Your task to perform on an android device: toggle data saver in the chrome app Image 0: 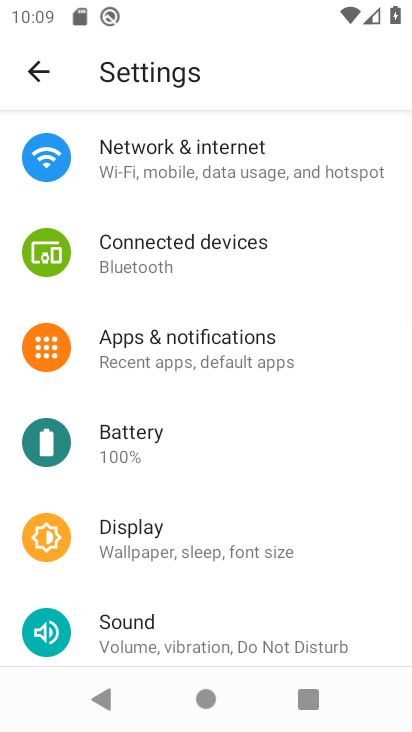
Step 0: press home button
Your task to perform on an android device: toggle data saver in the chrome app Image 1: 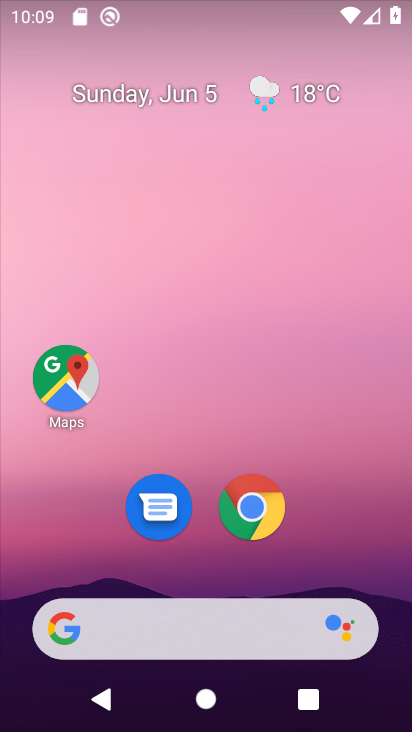
Step 1: click (241, 503)
Your task to perform on an android device: toggle data saver in the chrome app Image 2: 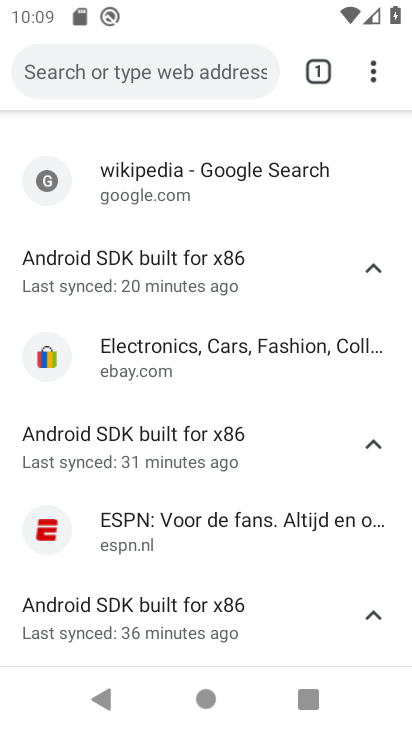
Step 2: click (371, 73)
Your task to perform on an android device: toggle data saver in the chrome app Image 3: 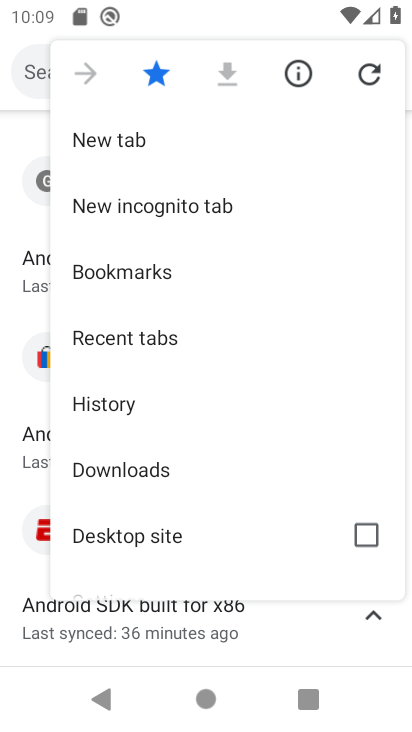
Step 3: drag from (191, 561) to (233, 205)
Your task to perform on an android device: toggle data saver in the chrome app Image 4: 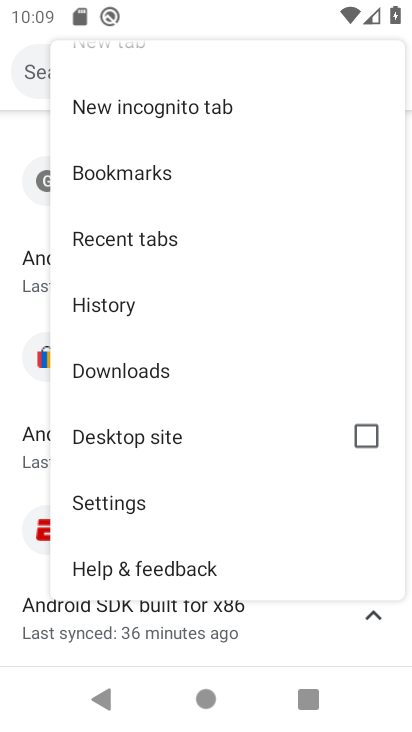
Step 4: click (133, 505)
Your task to perform on an android device: toggle data saver in the chrome app Image 5: 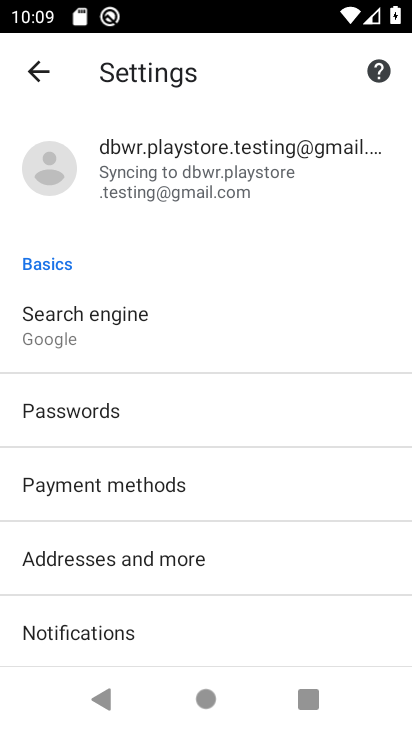
Step 5: drag from (98, 574) to (236, 74)
Your task to perform on an android device: toggle data saver in the chrome app Image 6: 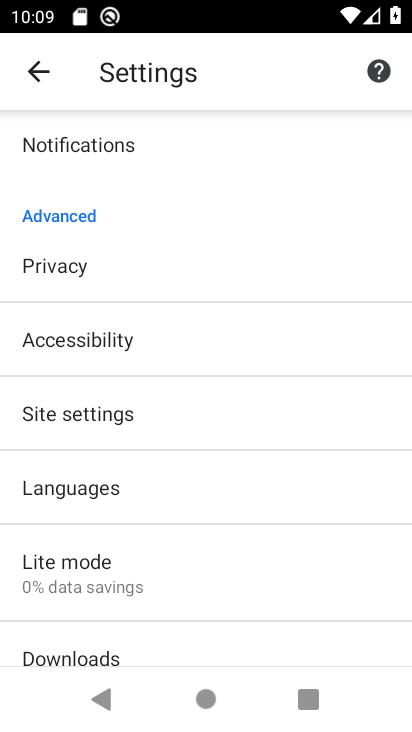
Step 6: drag from (220, 544) to (233, 194)
Your task to perform on an android device: toggle data saver in the chrome app Image 7: 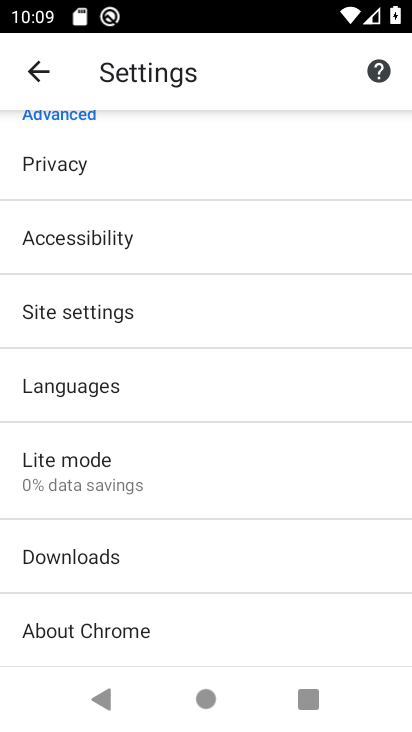
Step 7: click (85, 464)
Your task to perform on an android device: toggle data saver in the chrome app Image 8: 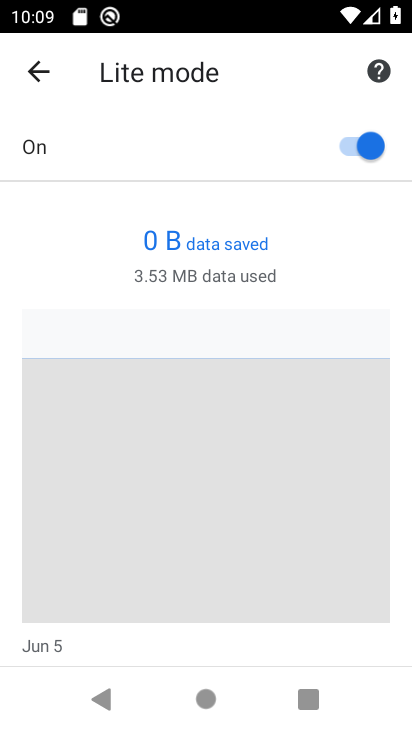
Step 8: click (345, 144)
Your task to perform on an android device: toggle data saver in the chrome app Image 9: 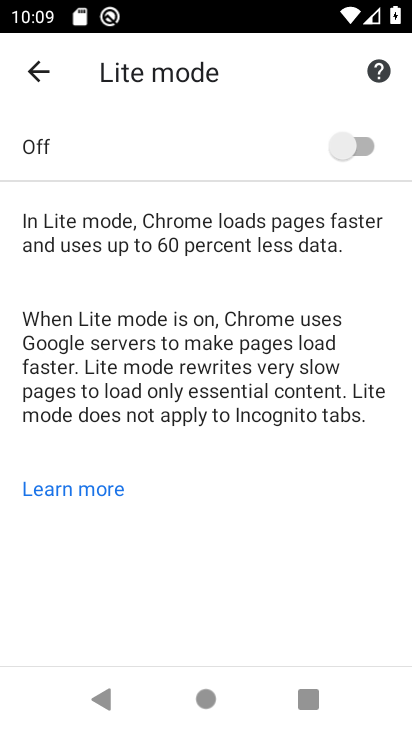
Step 9: task complete